Your task to perform on an android device: change timer sound Image 0: 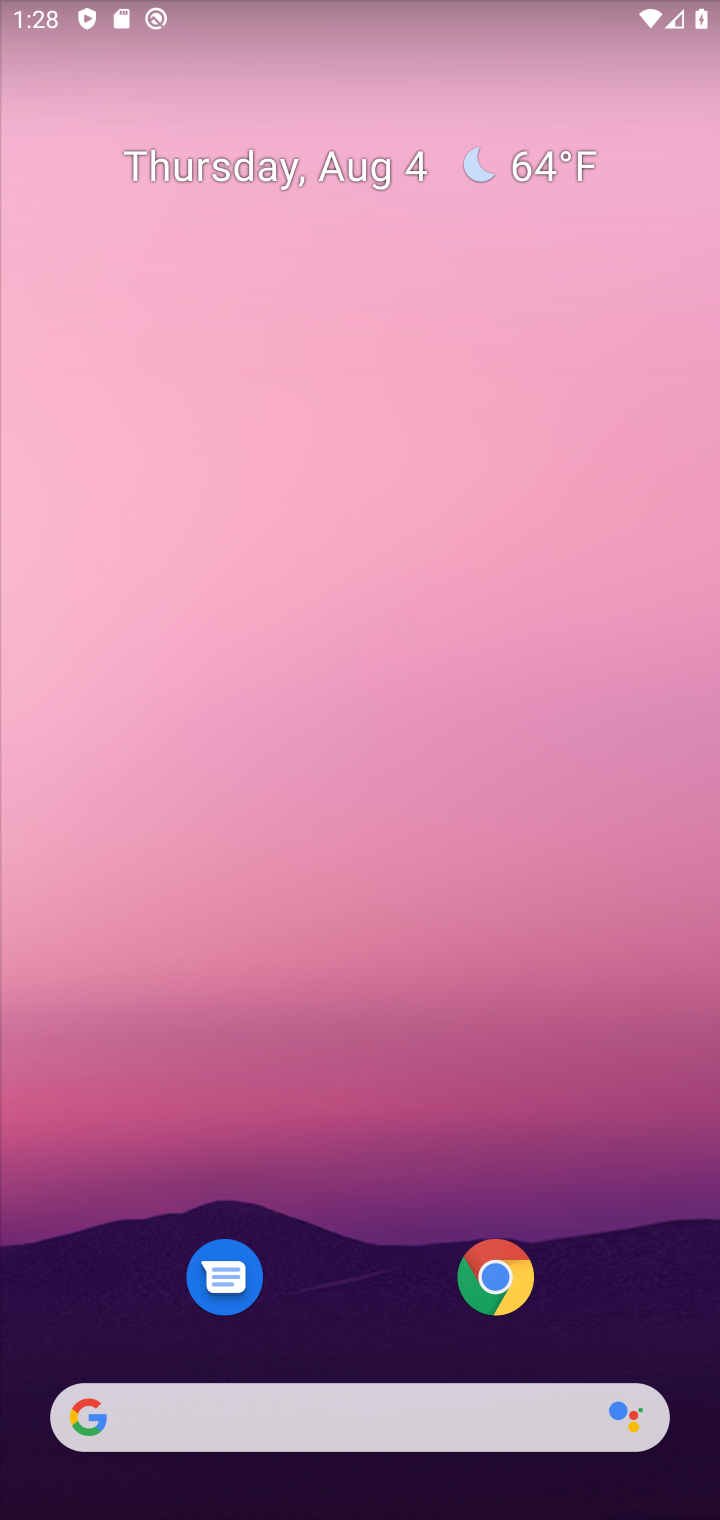
Step 0: drag from (296, 1313) to (319, 456)
Your task to perform on an android device: change timer sound Image 1: 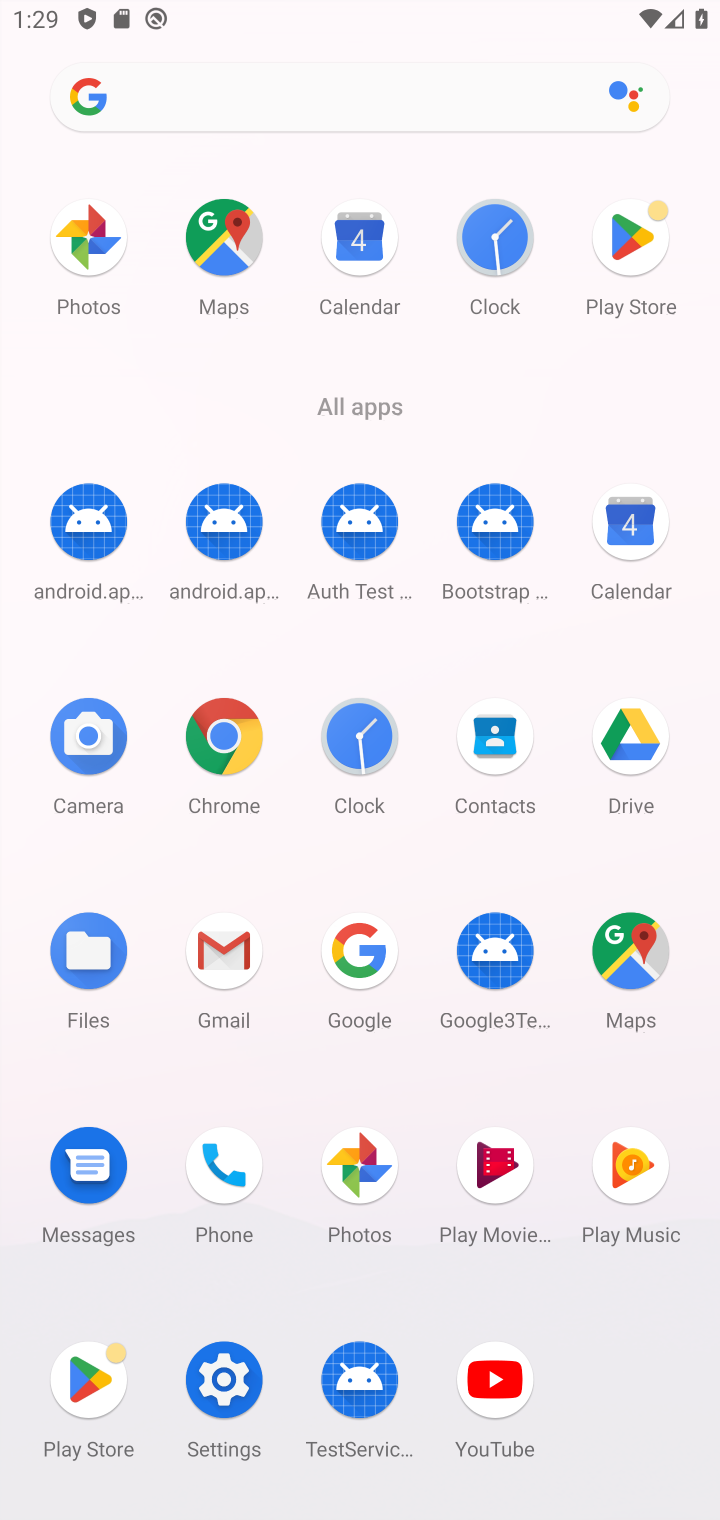
Step 1: click (350, 730)
Your task to perform on an android device: change timer sound Image 2: 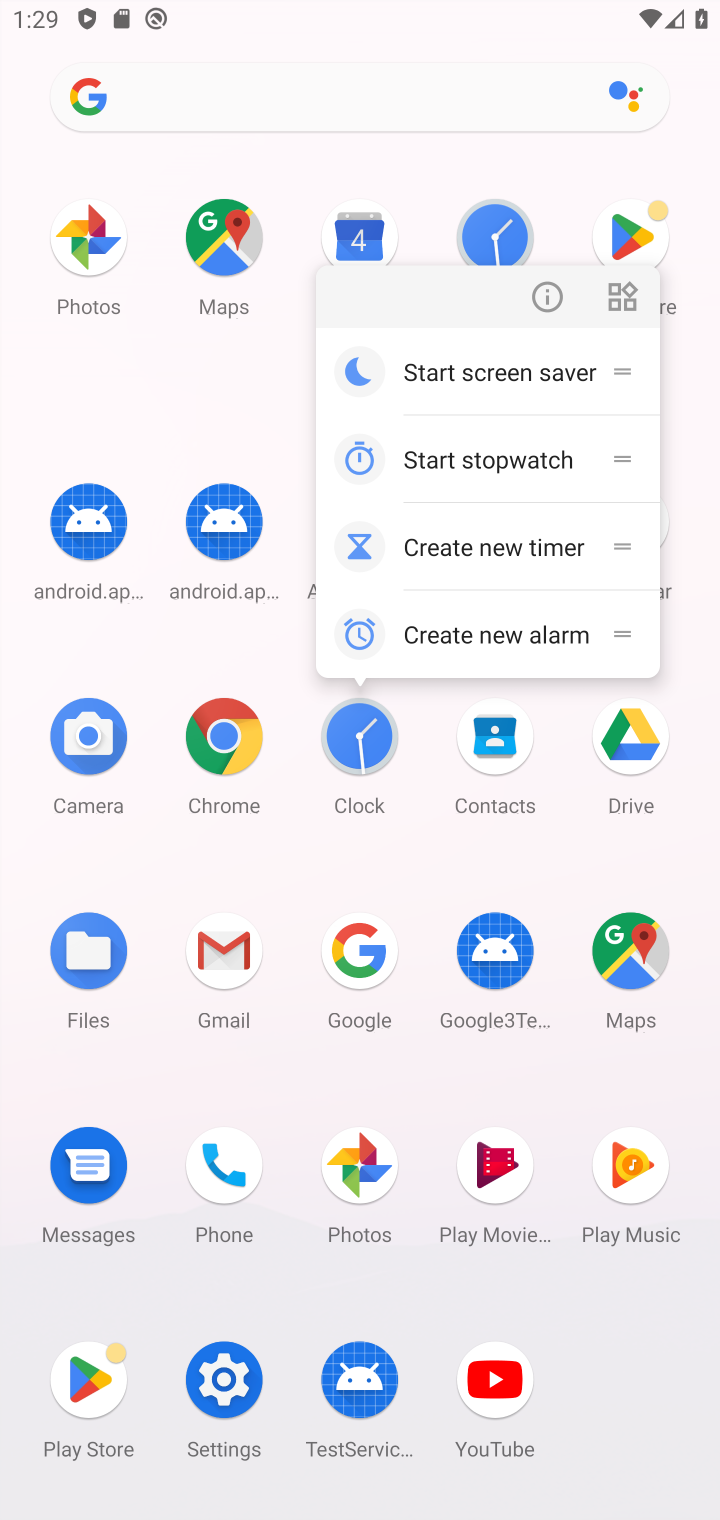
Step 2: click (379, 776)
Your task to perform on an android device: change timer sound Image 3: 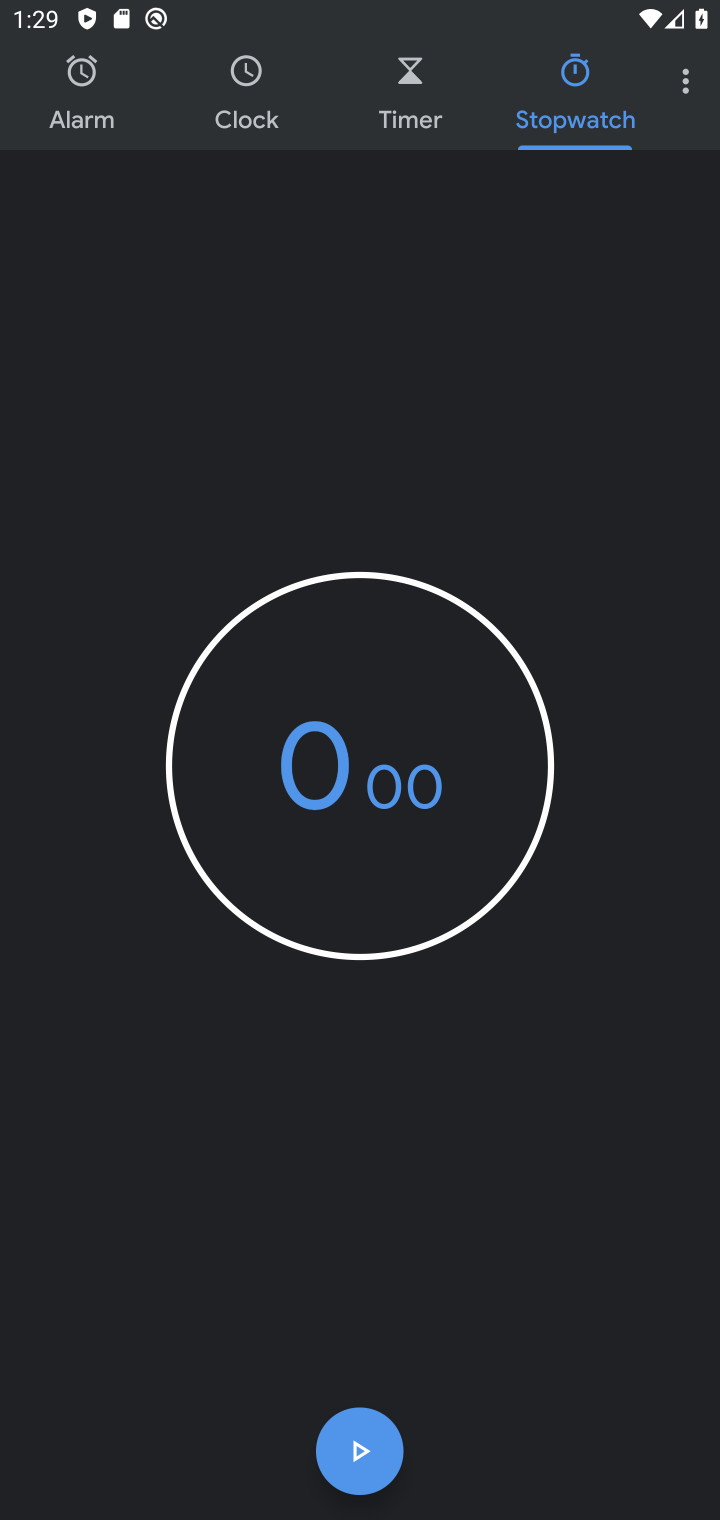
Step 3: click (700, 76)
Your task to perform on an android device: change timer sound Image 4: 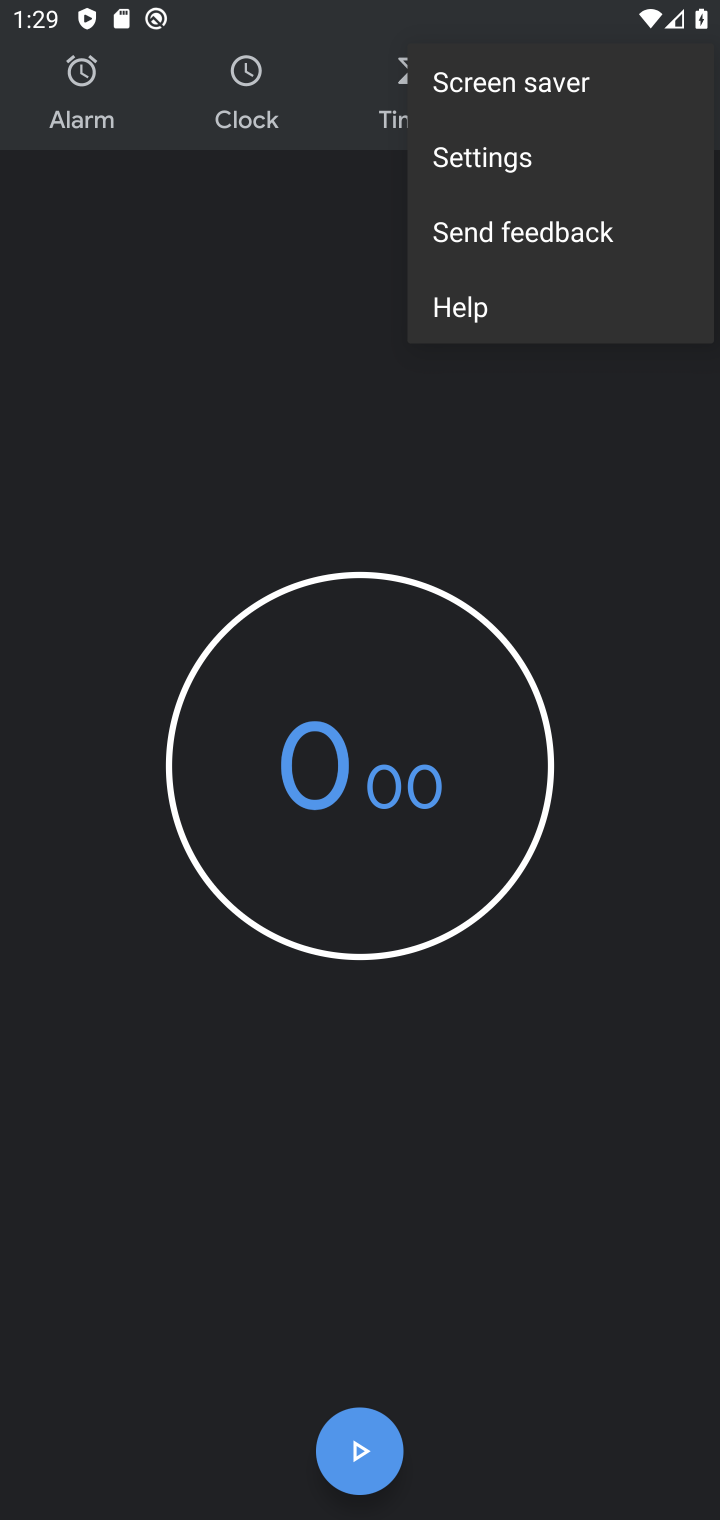
Step 4: click (505, 177)
Your task to perform on an android device: change timer sound Image 5: 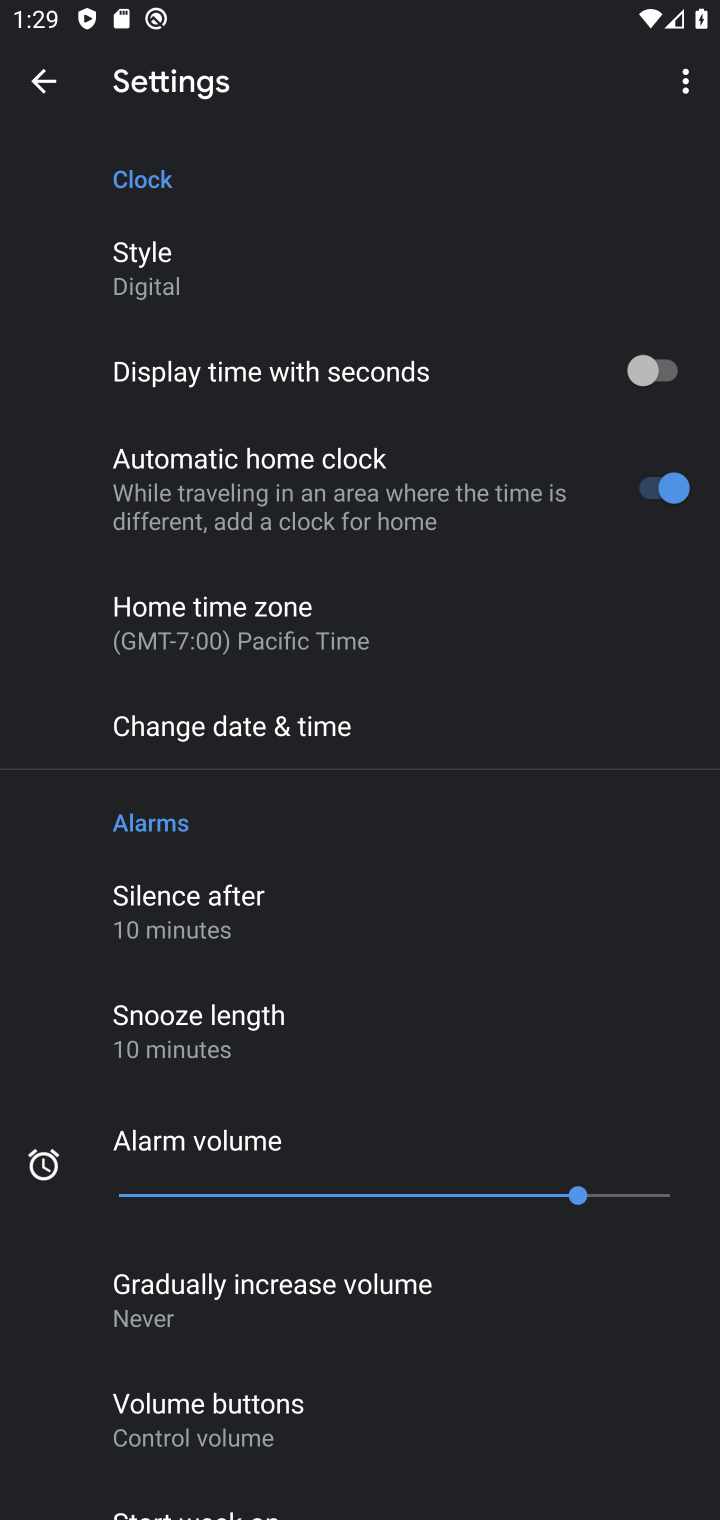
Step 5: drag from (249, 1176) to (324, 388)
Your task to perform on an android device: change timer sound Image 6: 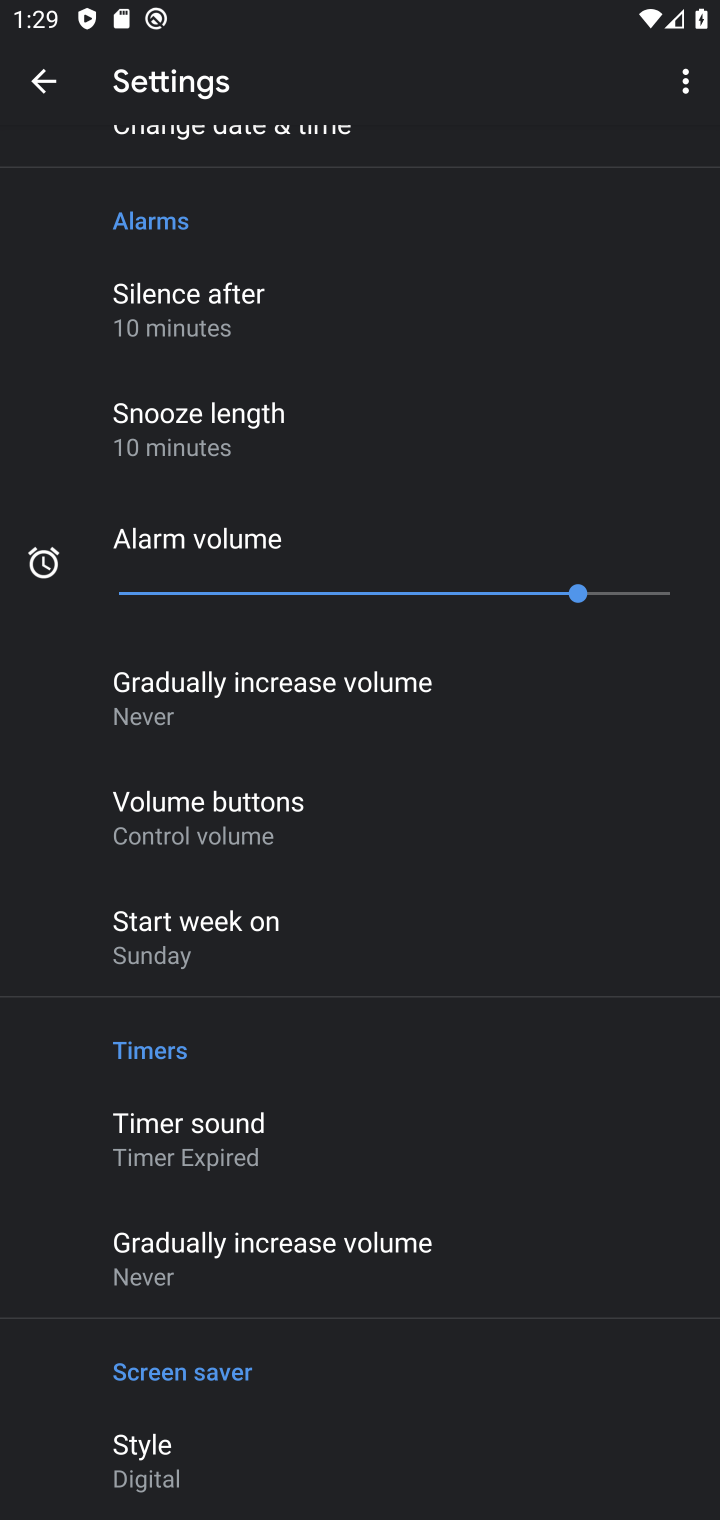
Step 6: click (207, 1155)
Your task to perform on an android device: change timer sound Image 7: 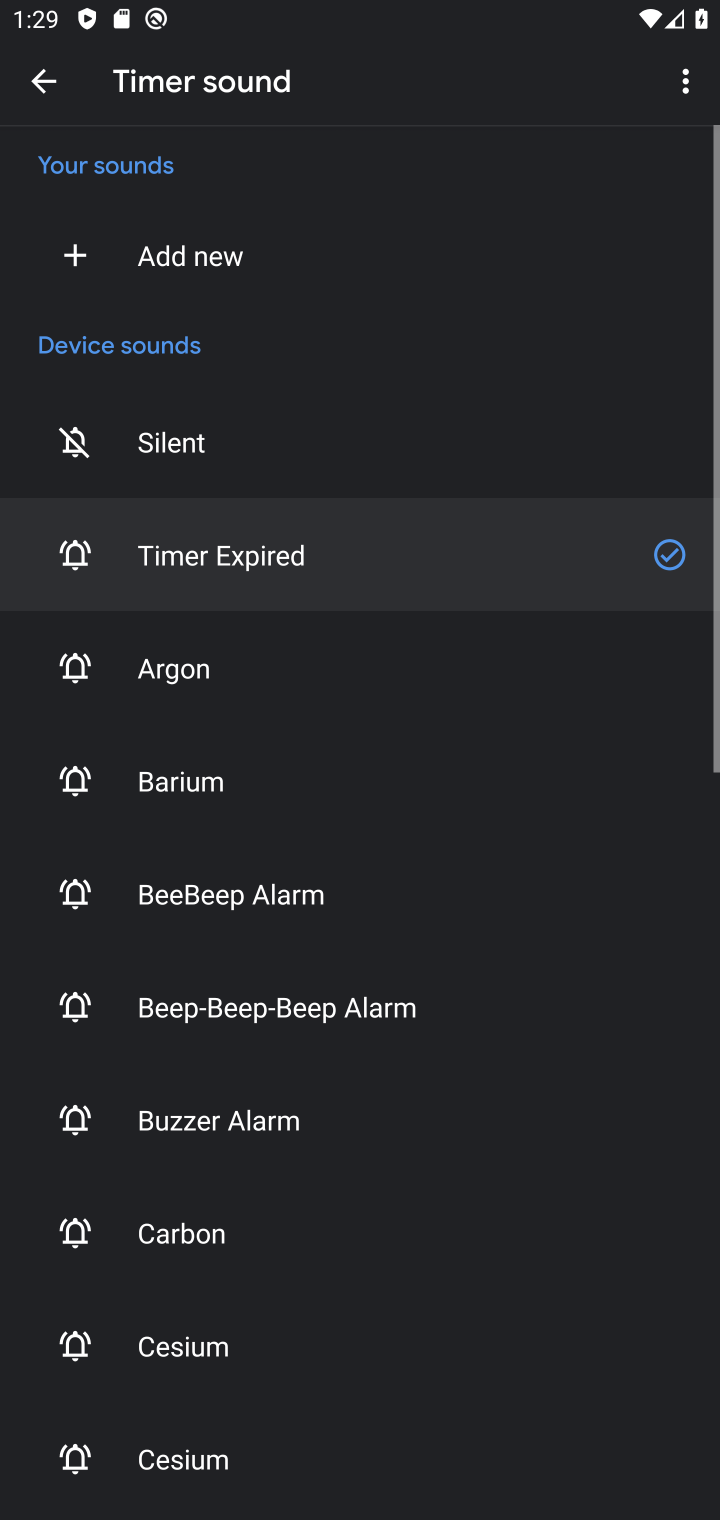
Step 7: click (176, 1125)
Your task to perform on an android device: change timer sound Image 8: 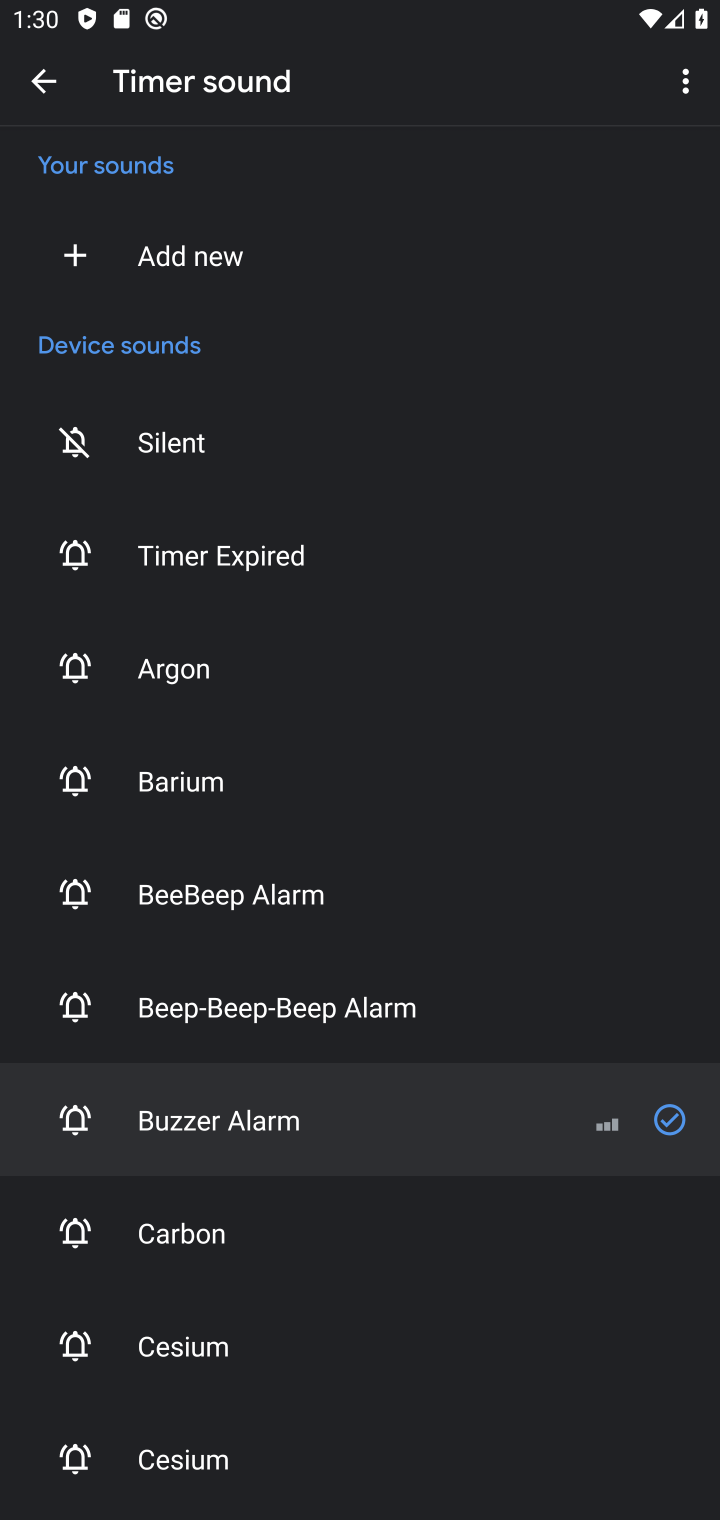
Step 8: task complete